Your task to perform on an android device: Search for Italian restaurants on Maps Image 0: 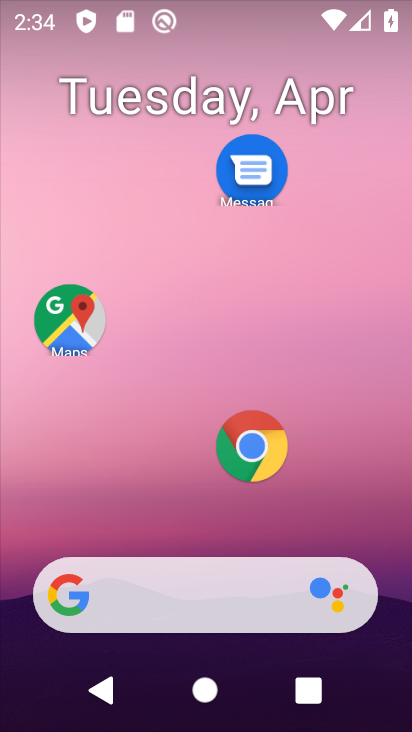
Step 0: click (83, 316)
Your task to perform on an android device: Search for Italian restaurants on Maps Image 1: 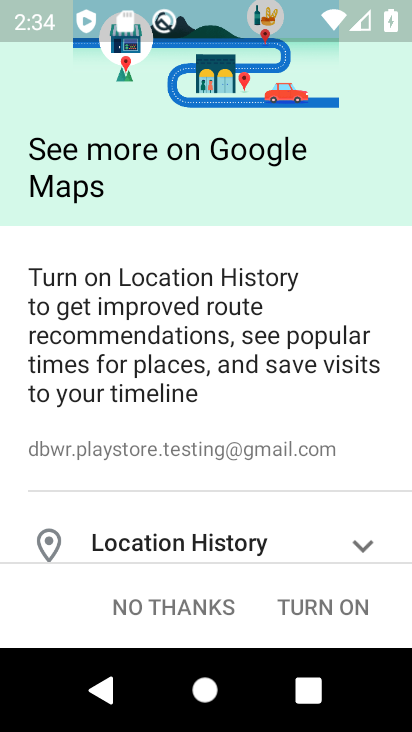
Step 1: click (335, 618)
Your task to perform on an android device: Search for Italian restaurants on Maps Image 2: 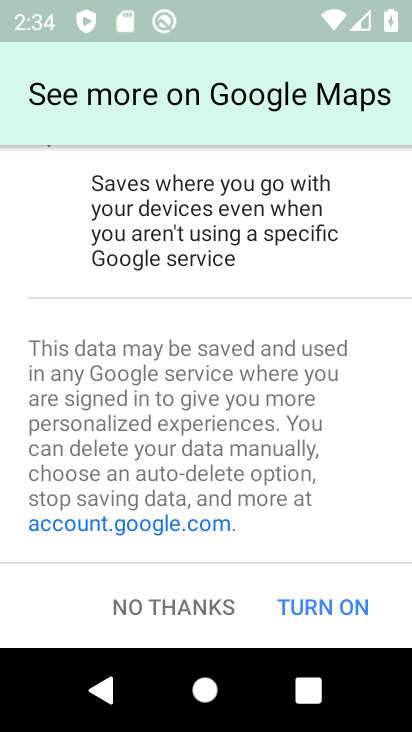
Step 2: click (335, 618)
Your task to perform on an android device: Search for Italian restaurants on Maps Image 3: 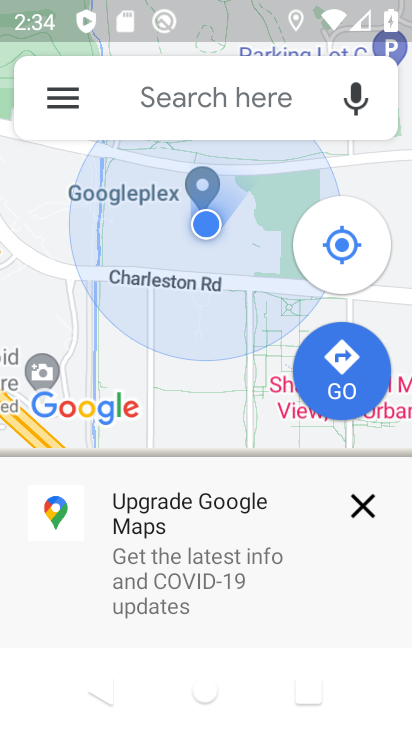
Step 3: click (173, 89)
Your task to perform on an android device: Search for Italian restaurants on Maps Image 4: 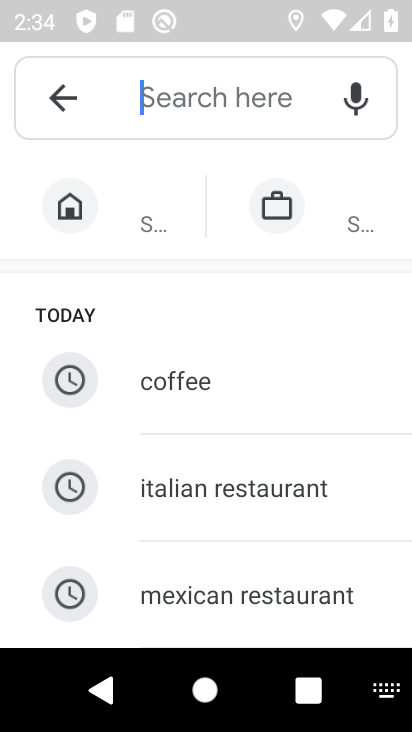
Step 4: type "Italian restaurants"
Your task to perform on an android device: Search for Italian restaurants on Maps Image 5: 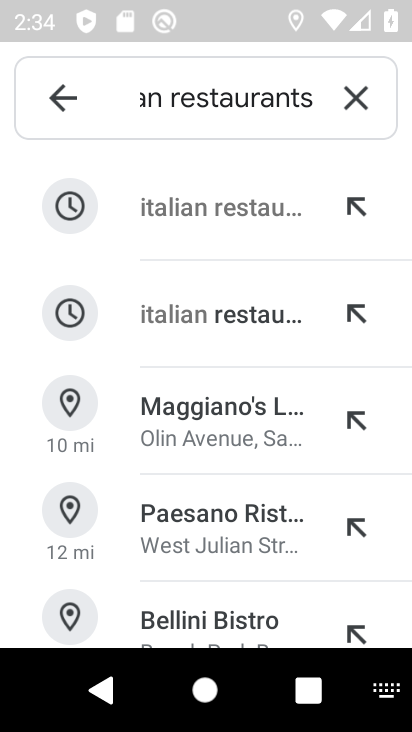
Step 5: click (212, 214)
Your task to perform on an android device: Search for Italian restaurants on Maps Image 6: 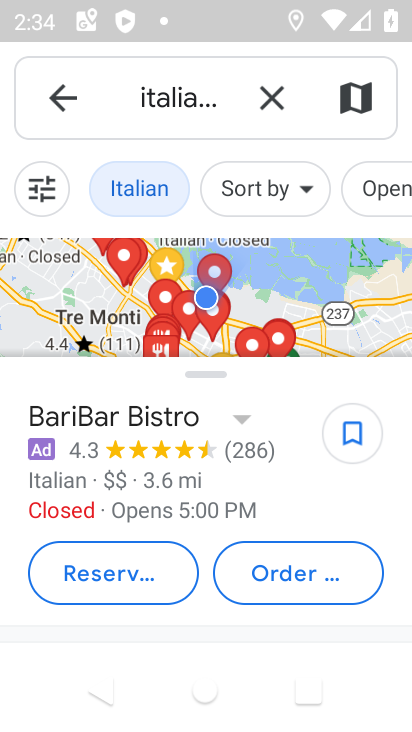
Step 6: task complete